Your task to perform on an android device: toggle notifications settings in the gmail app Image 0: 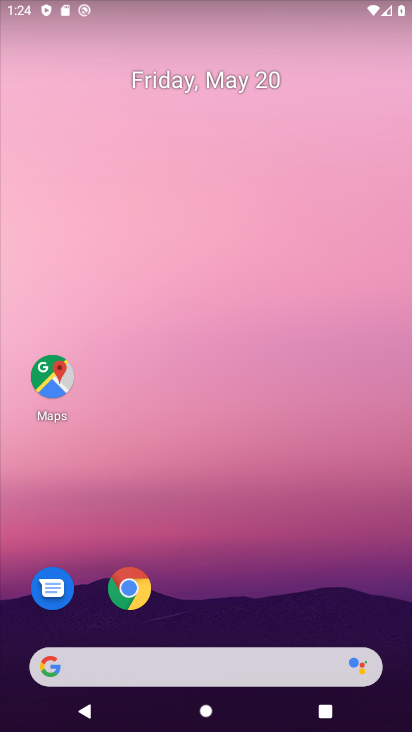
Step 0: drag from (172, 650) to (195, 173)
Your task to perform on an android device: toggle notifications settings in the gmail app Image 1: 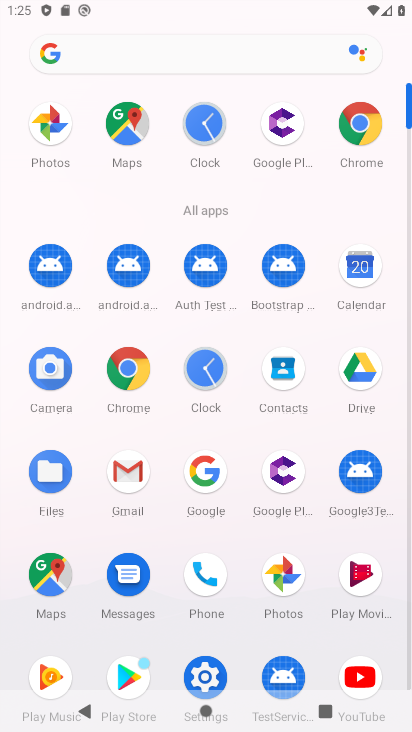
Step 1: click (127, 475)
Your task to perform on an android device: toggle notifications settings in the gmail app Image 2: 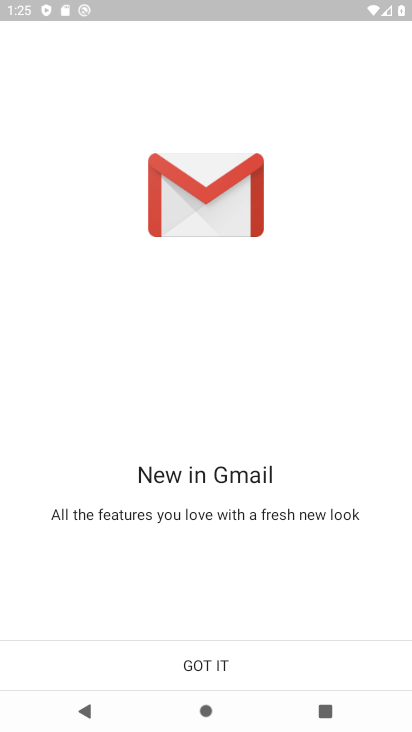
Step 2: click (203, 667)
Your task to perform on an android device: toggle notifications settings in the gmail app Image 3: 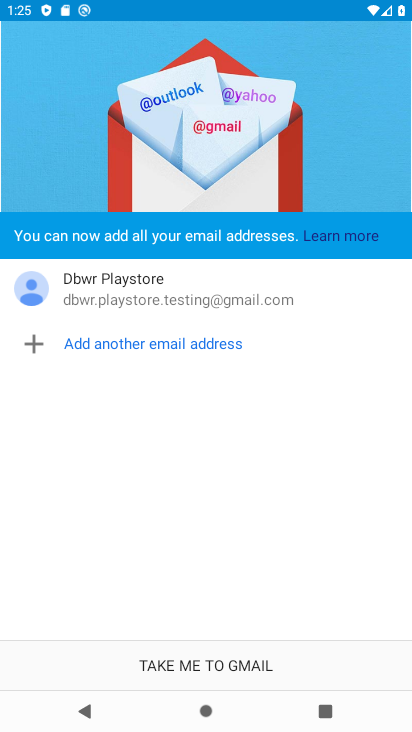
Step 3: click (224, 669)
Your task to perform on an android device: toggle notifications settings in the gmail app Image 4: 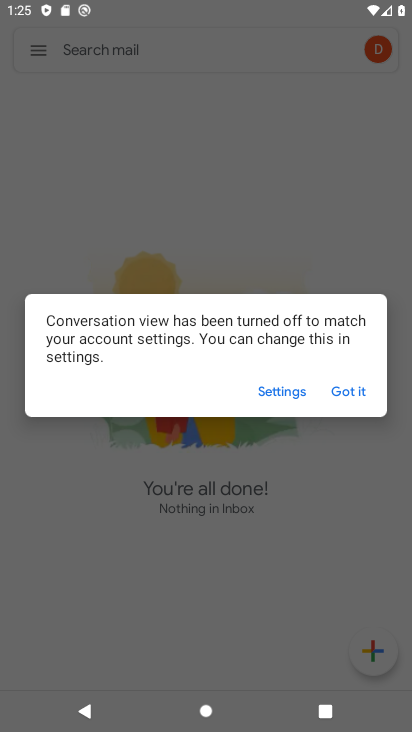
Step 4: click (363, 397)
Your task to perform on an android device: toggle notifications settings in the gmail app Image 5: 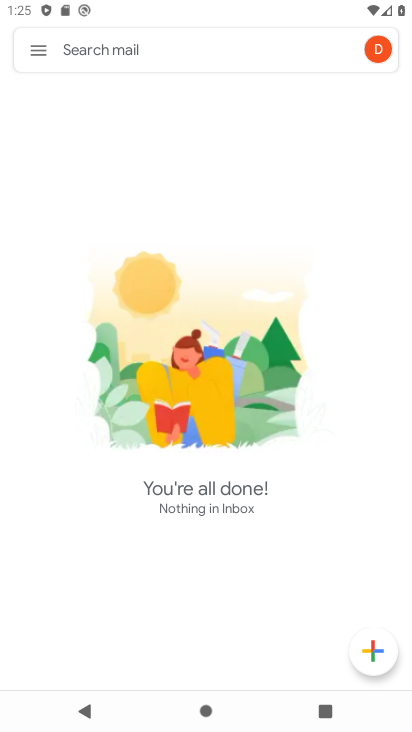
Step 5: click (39, 57)
Your task to perform on an android device: toggle notifications settings in the gmail app Image 6: 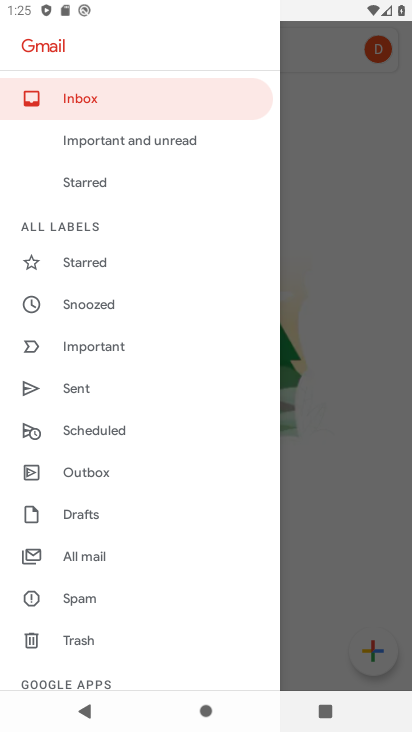
Step 6: drag from (109, 658) to (92, 208)
Your task to perform on an android device: toggle notifications settings in the gmail app Image 7: 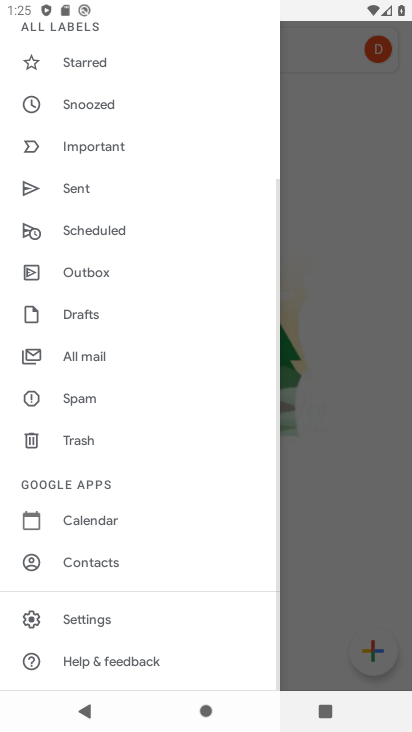
Step 7: click (87, 618)
Your task to perform on an android device: toggle notifications settings in the gmail app Image 8: 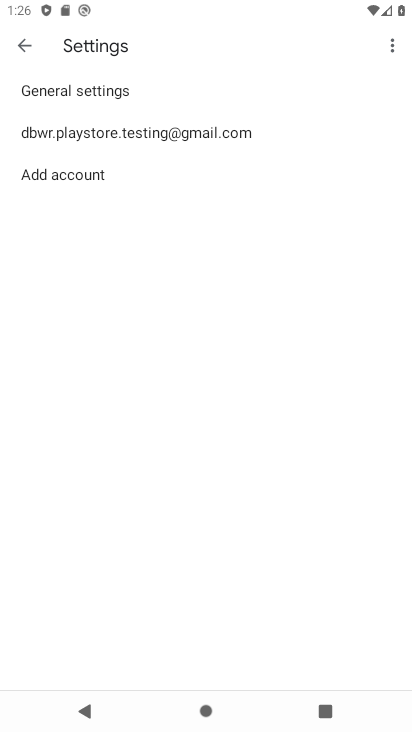
Step 8: click (145, 127)
Your task to perform on an android device: toggle notifications settings in the gmail app Image 9: 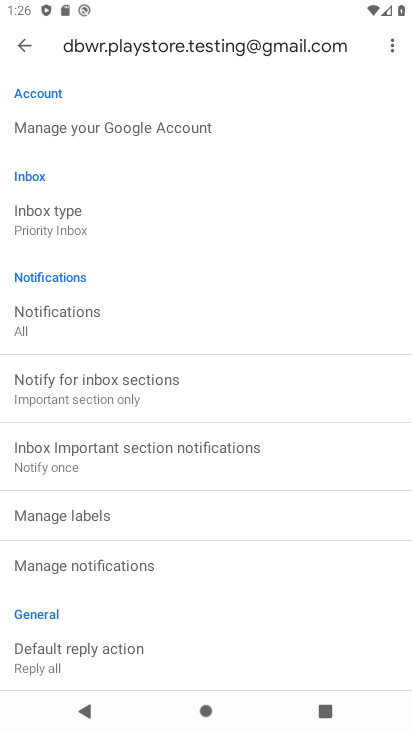
Step 9: drag from (145, 607) to (136, 126)
Your task to perform on an android device: toggle notifications settings in the gmail app Image 10: 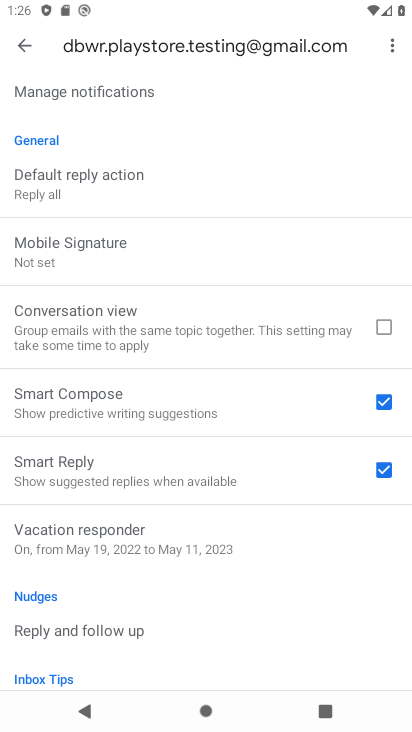
Step 10: click (69, 92)
Your task to perform on an android device: toggle notifications settings in the gmail app Image 11: 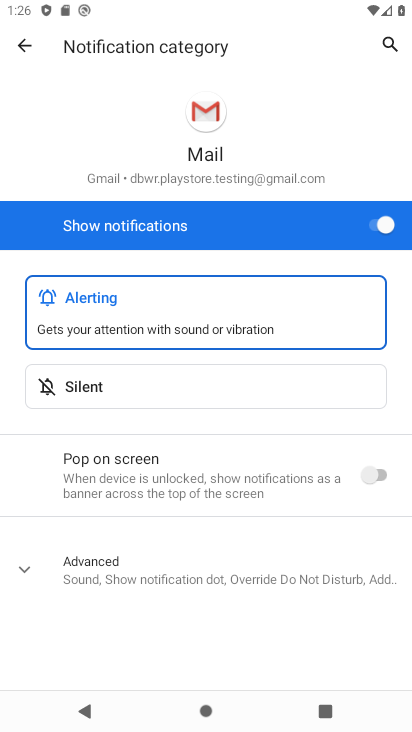
Step 11: click (391, 229)
Your task to perform on an android device: toggle notifications settings in the gmail app Image 12: 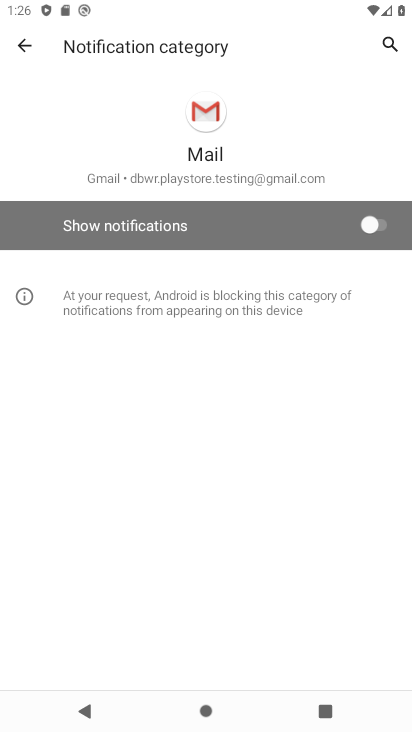
Step 12: task complete